Your task to perform on an android device: open app "Fetch Rewards" (install if not already installed) and go to login screen Image 0: 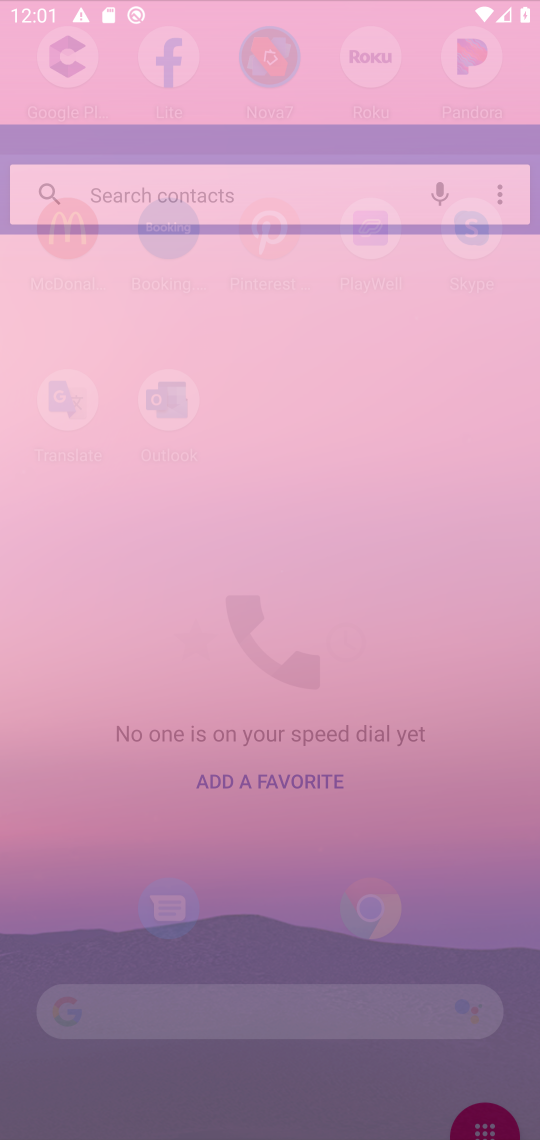
Step 0: press home button
Your task to perform on an android device: open app "Fetch Rewards" (install if not already installed) and go to login screen Image 1: 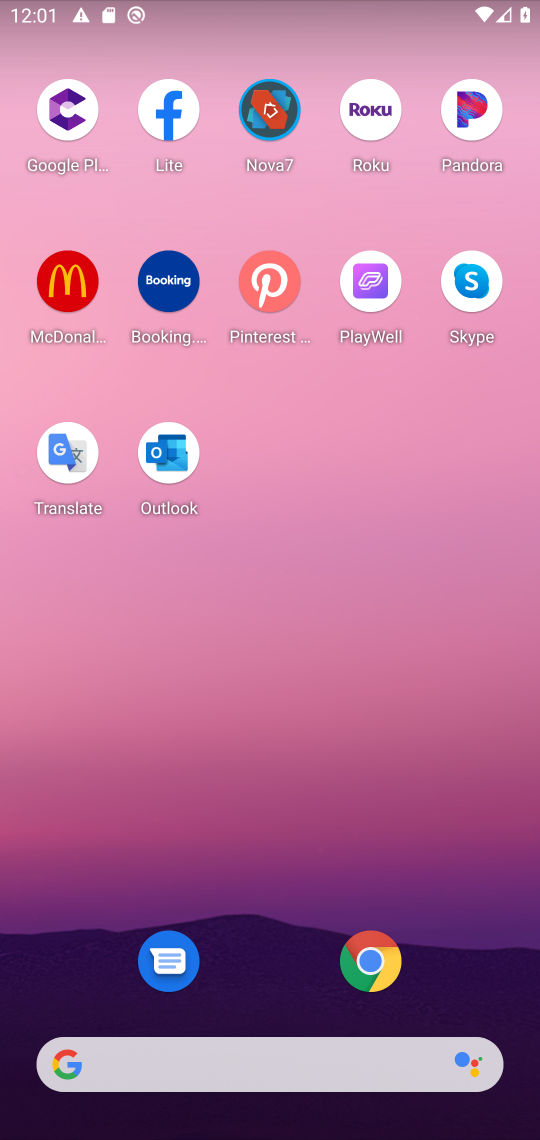
Step 1: drag from (477, 880) to (453, 142)
Your task to perform on an android device: open app "Fetch Rewards" (install if not already installed) and go to login screen Image 2: 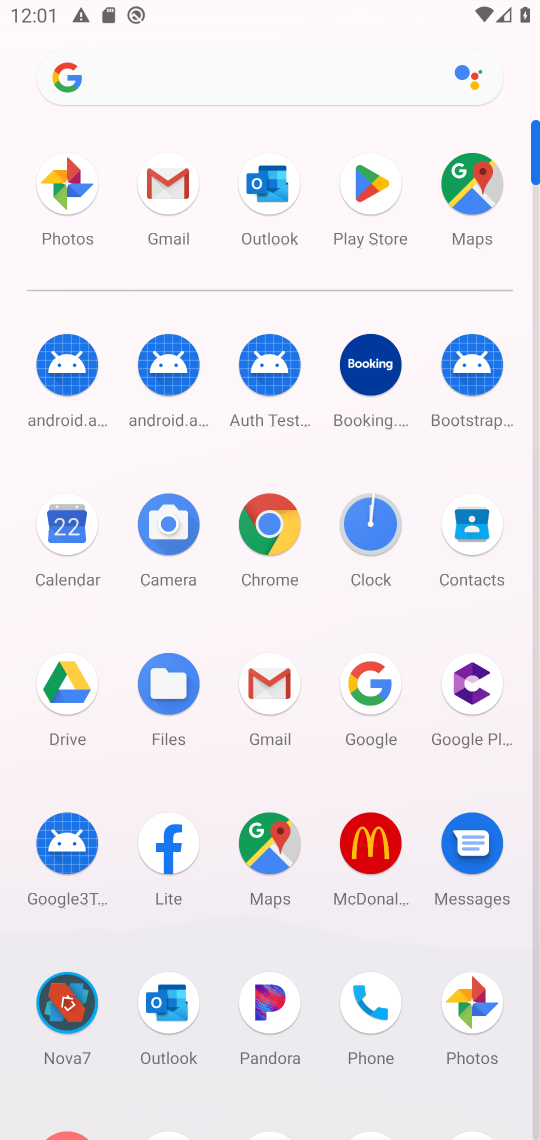
Step 2: click (368, 178)
Your task to perform on an android device: open app "Fetch Rewards" (install if not already installed) and go to login screen Image 3: 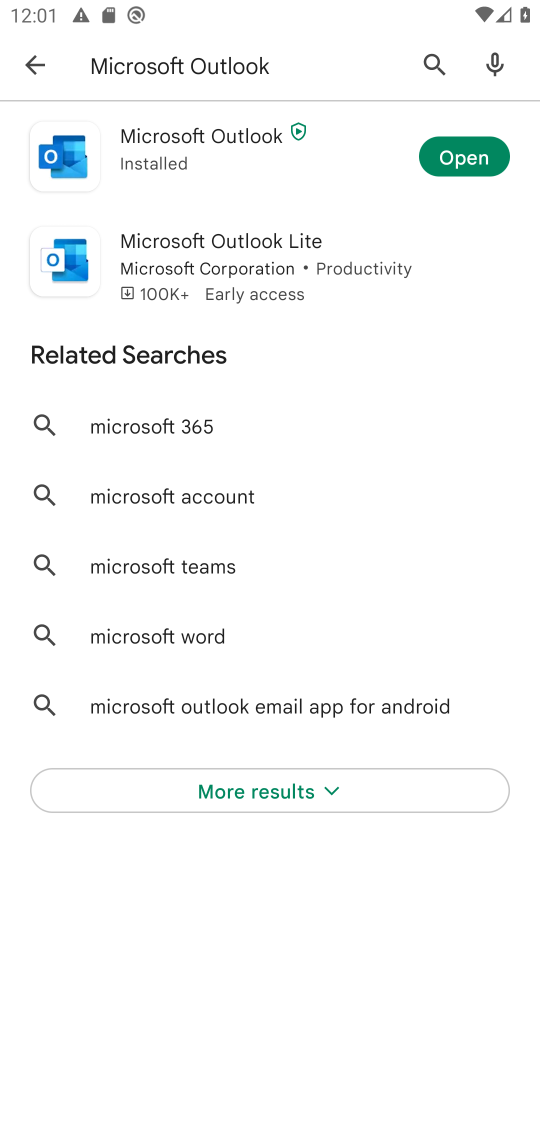
Step 3: press back button
Your task to perform on an android device: open app "Fetch Rewards" (install if not already installed) and go to login screen Image 4: 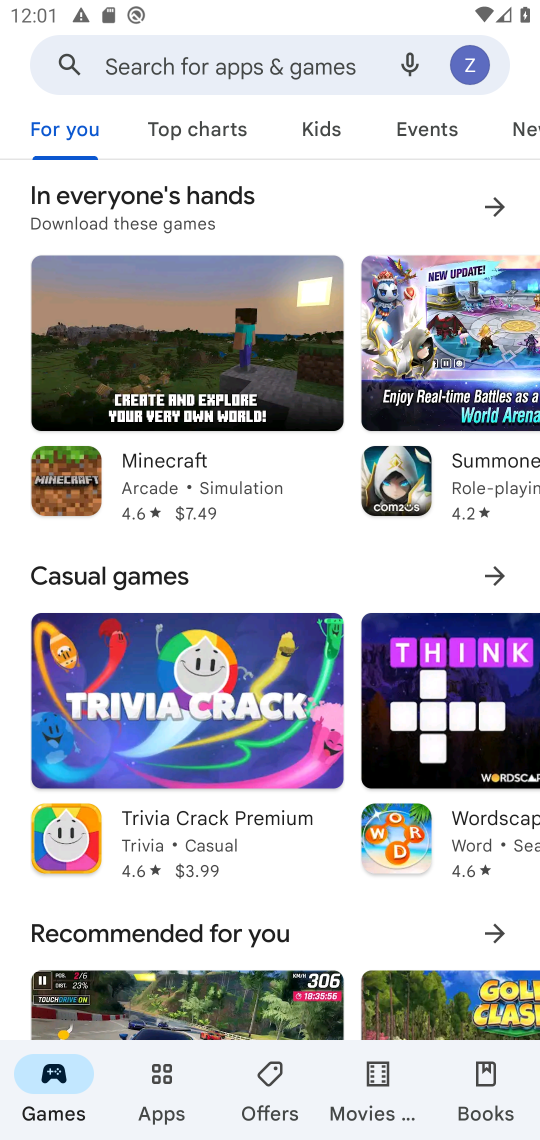
Step 4: click (297, 67)
Your task to perform on an android device: open app "Fetch Rewards" (install if not already installed) and go to login screen Image 5: 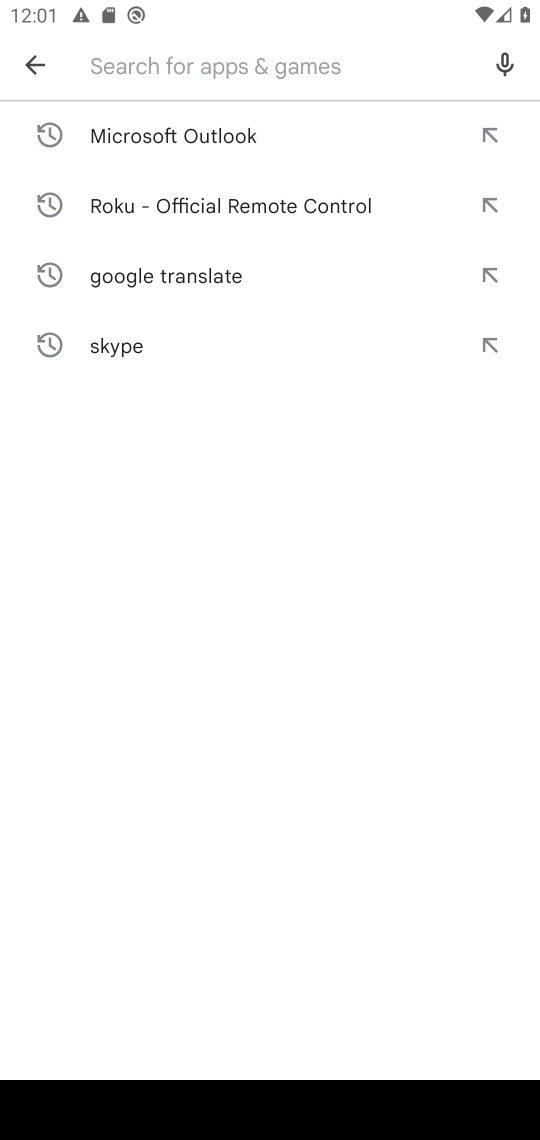
Step 5: type "Fetch Rewards"
Your task to perform on an android device: open app "Fetch Rewards" (install if not already installed) and go to login screen Image 6: 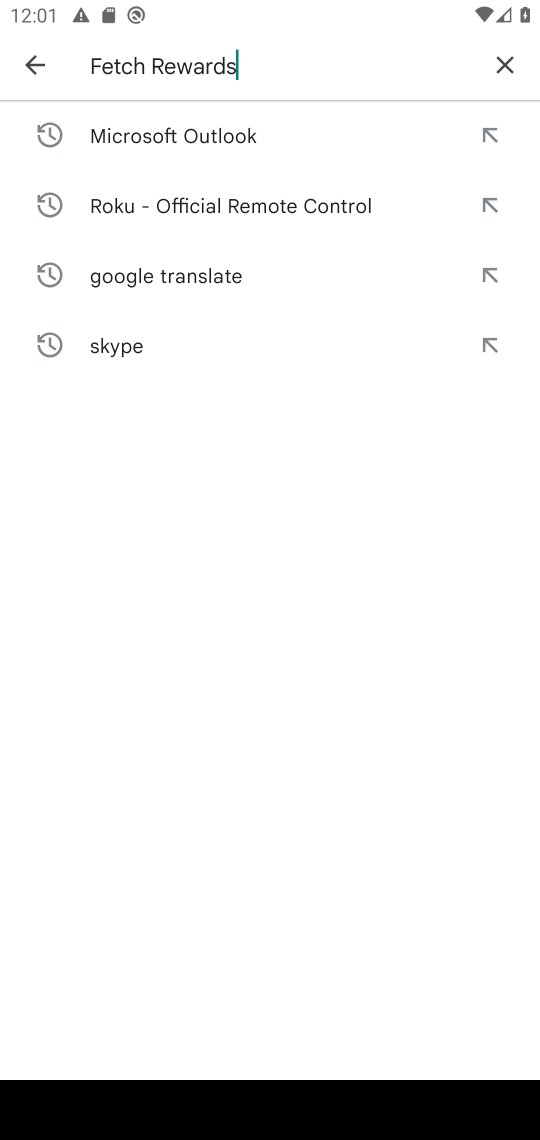
Step 6: press enter
Your task to perform on an android device: open app "Fetch Rewards" (install if not already installed) and go to login screen Image 7: 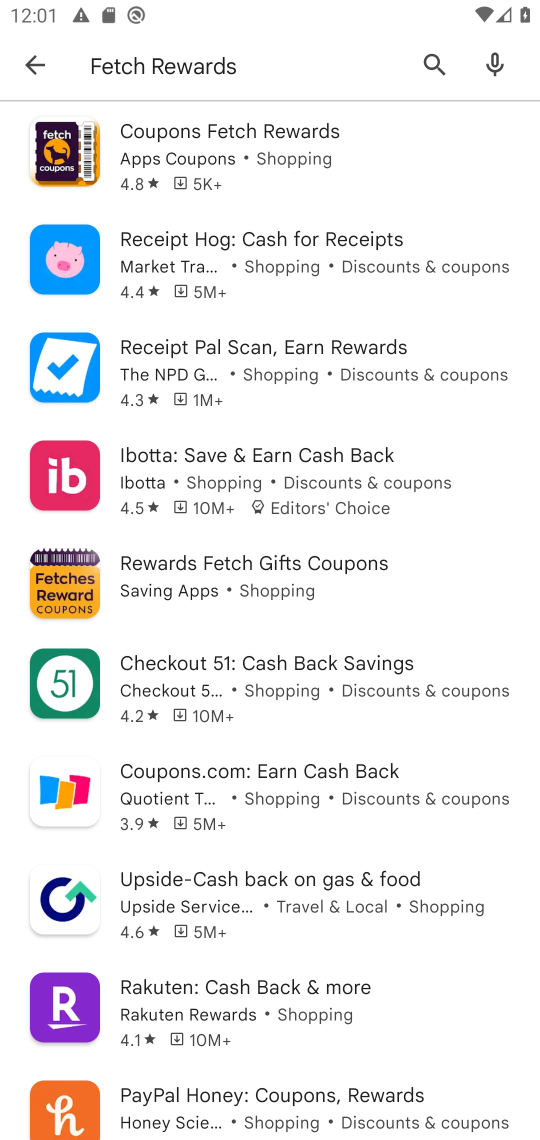
Step 7: task complete